Your task to perform on an android device: What's the news in Brazil? Image 0: 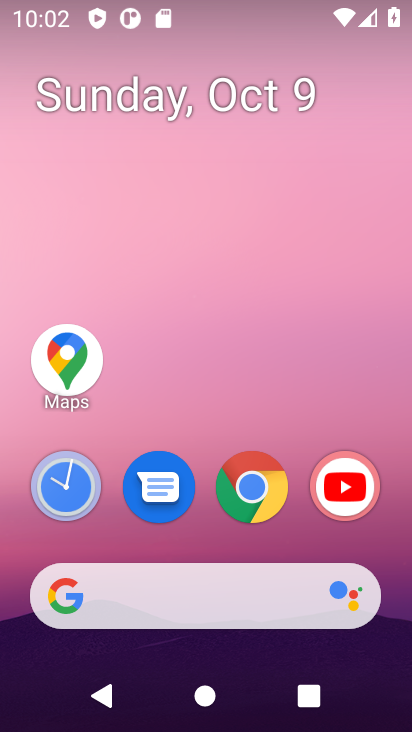
Step 0: click (199, 60)
Your task to perform on an android device: What's the news in Brazil? Image 1: 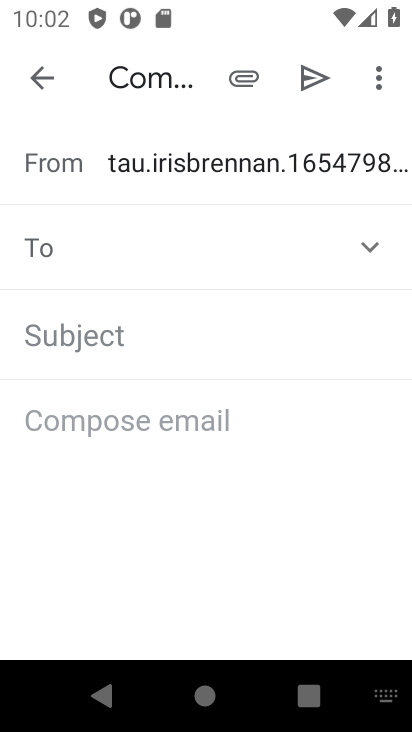
Step 1: press home button
Your task to perform on an android device: What's the news in Brazil? Image 2: 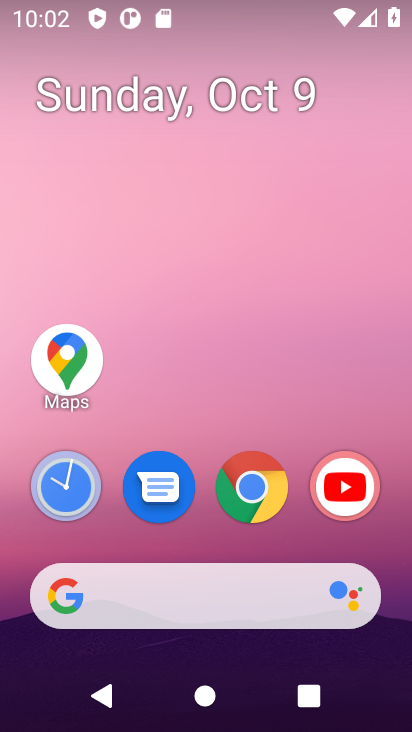
Step 2: click (253, 482)
Your task to perform on an android device: What's the news in Brazil? Image 3: 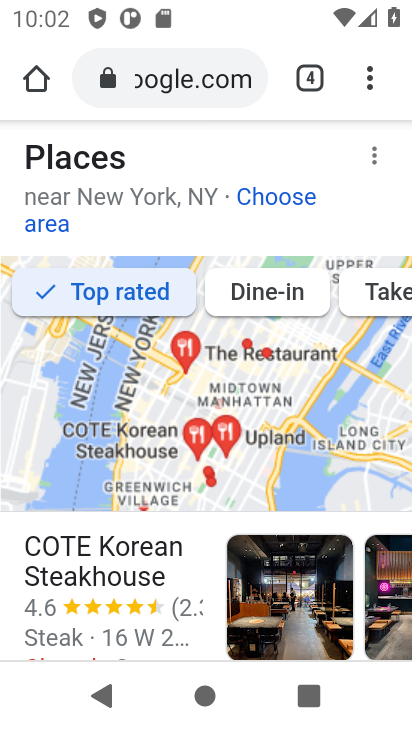
Step 3: drag from (242, 150) to (254, 416)
Your task to perform on an android device: What's the news in Brazil? Image 4: 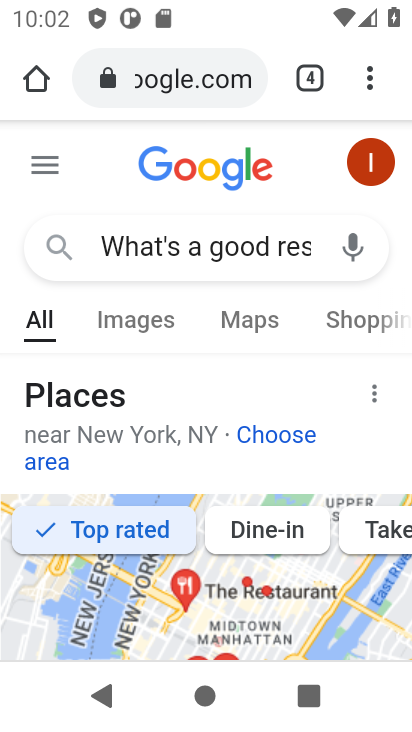
Step 4: click (204, 252)
Your task to perform on an android device: What's the news in Brazil? Image 5: 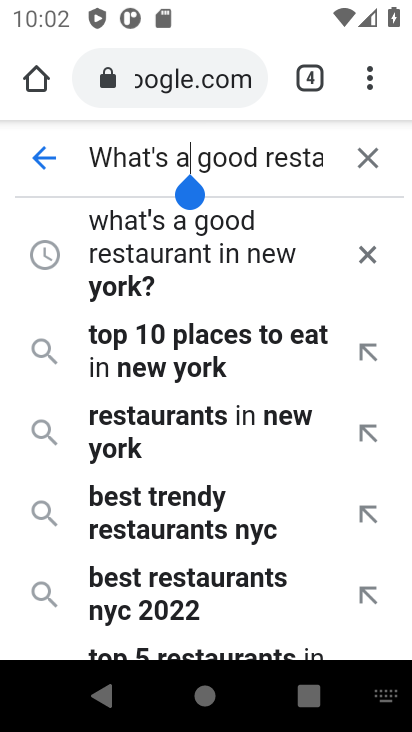
Step 5: click (362, 161)
Your task to perform on an android device: What's the news in Brazil? Image 6: 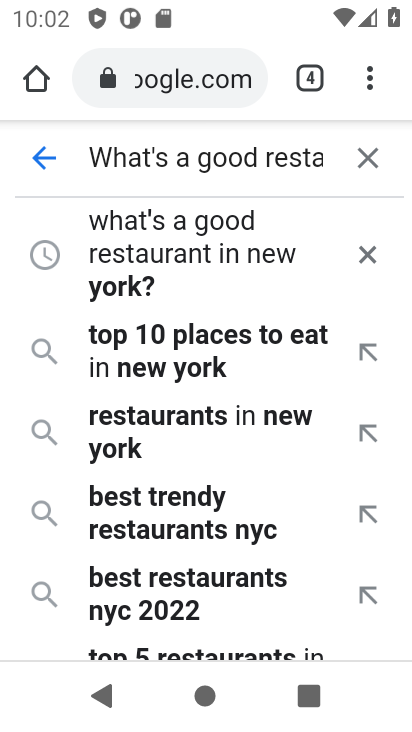
Step 6: click (369, 152)
Your task to perform on an android device: What's the news in Brazil? Image 7: 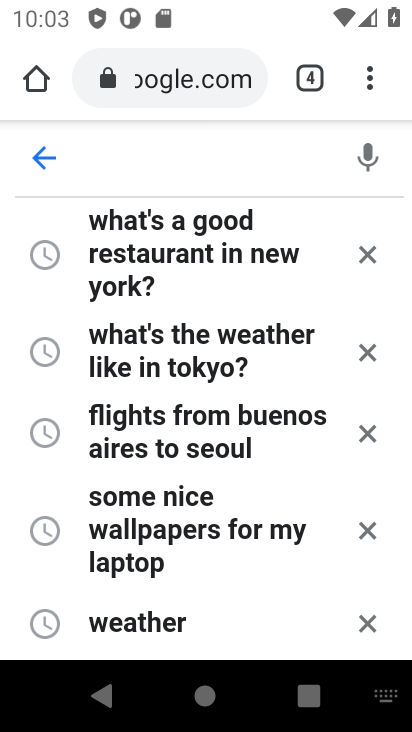
Step 7: type "What's the news in Brazil?"
Your task to perform on an android device: What's the news in Brazil? Image 8: 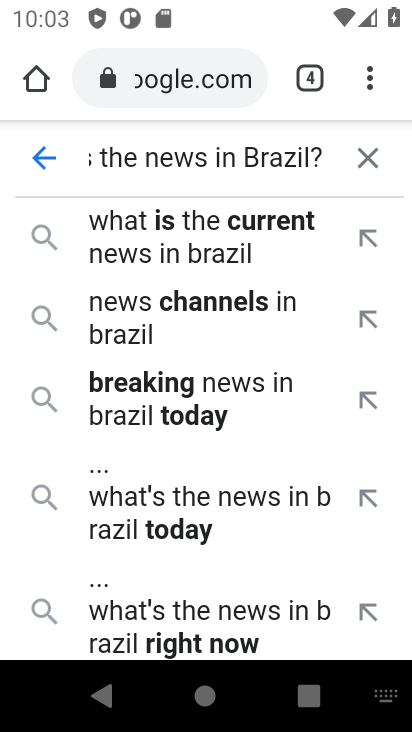
Step 8: click (195, 505)
Your task to perform on an android device: What's the news in Brazil? Image 9: 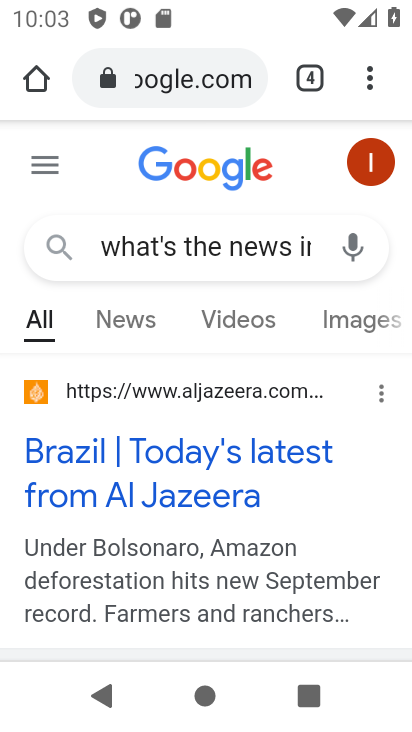
Step 9: click (135, 326)
Your task to perform on an android device: What's the news in Brazil? Image 10: 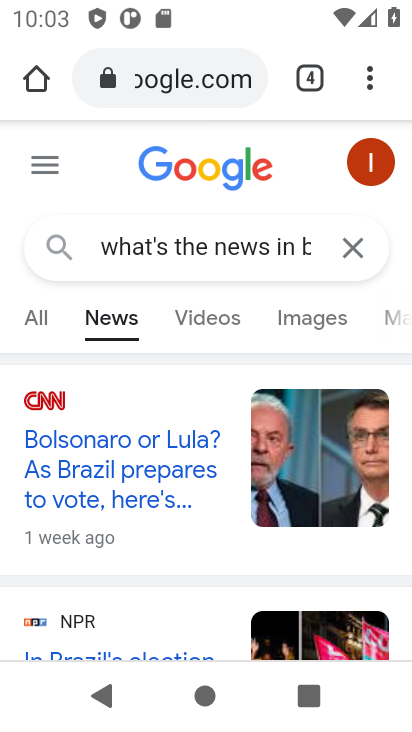
Step 10: task complete